Your task to perform on an android device: Open Chrome and go to the settings page Image 0: 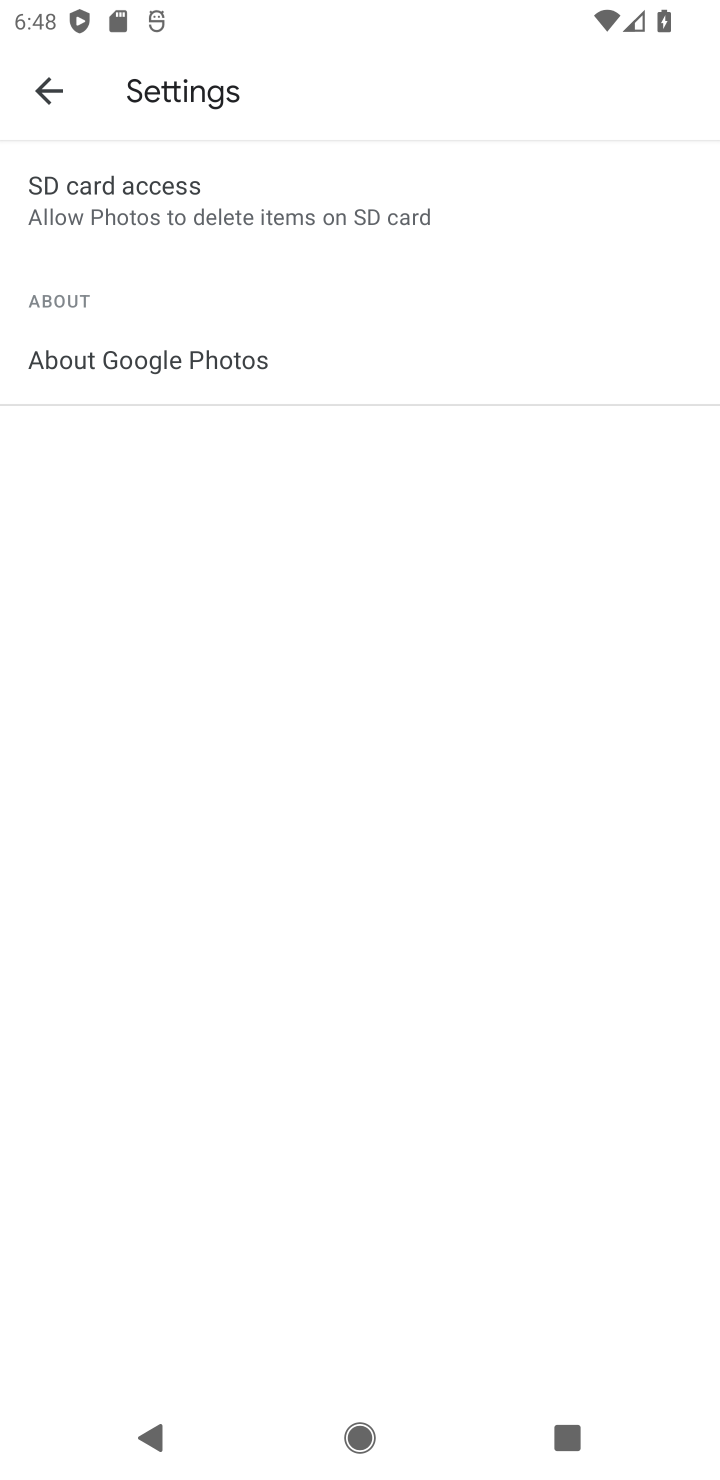
Step 0: press home button
Your task to perform on an android device: Open Chrome and go to the settings page Image 1: 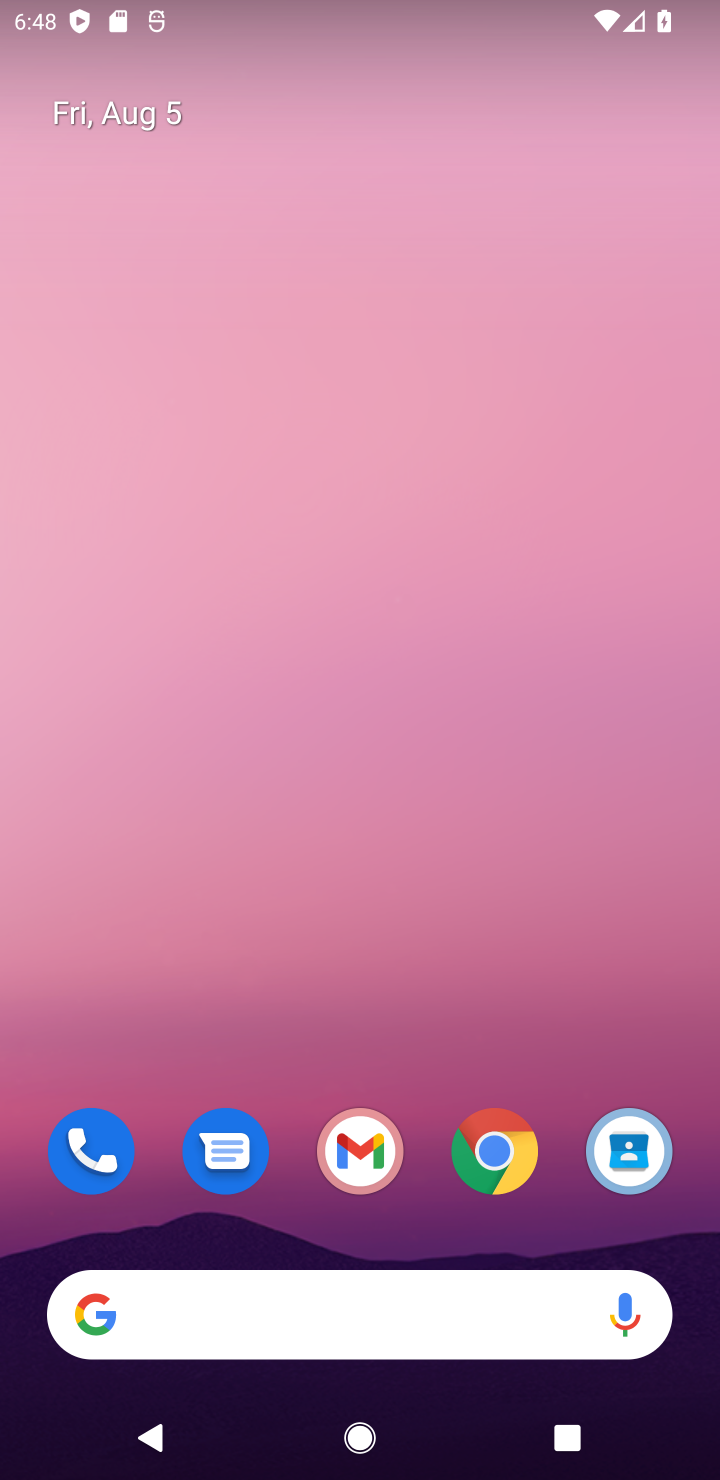
Step 1: click (532, 1145)
Your task to perform on an android device: Open Chrome and go to the settings page Image 2: 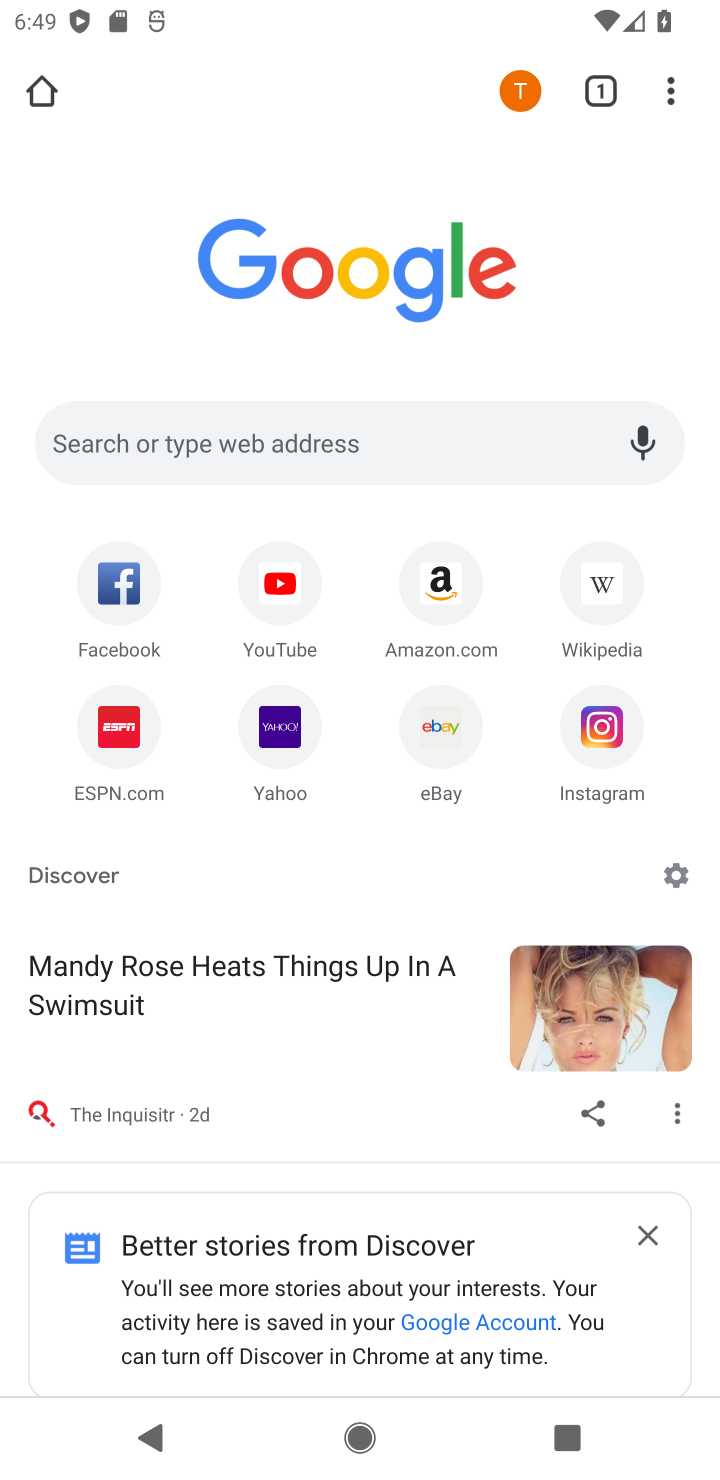
Step 2: click (680, 97)
Your task to perform on an android device: Open Chrome and go to the settings page Image 3: 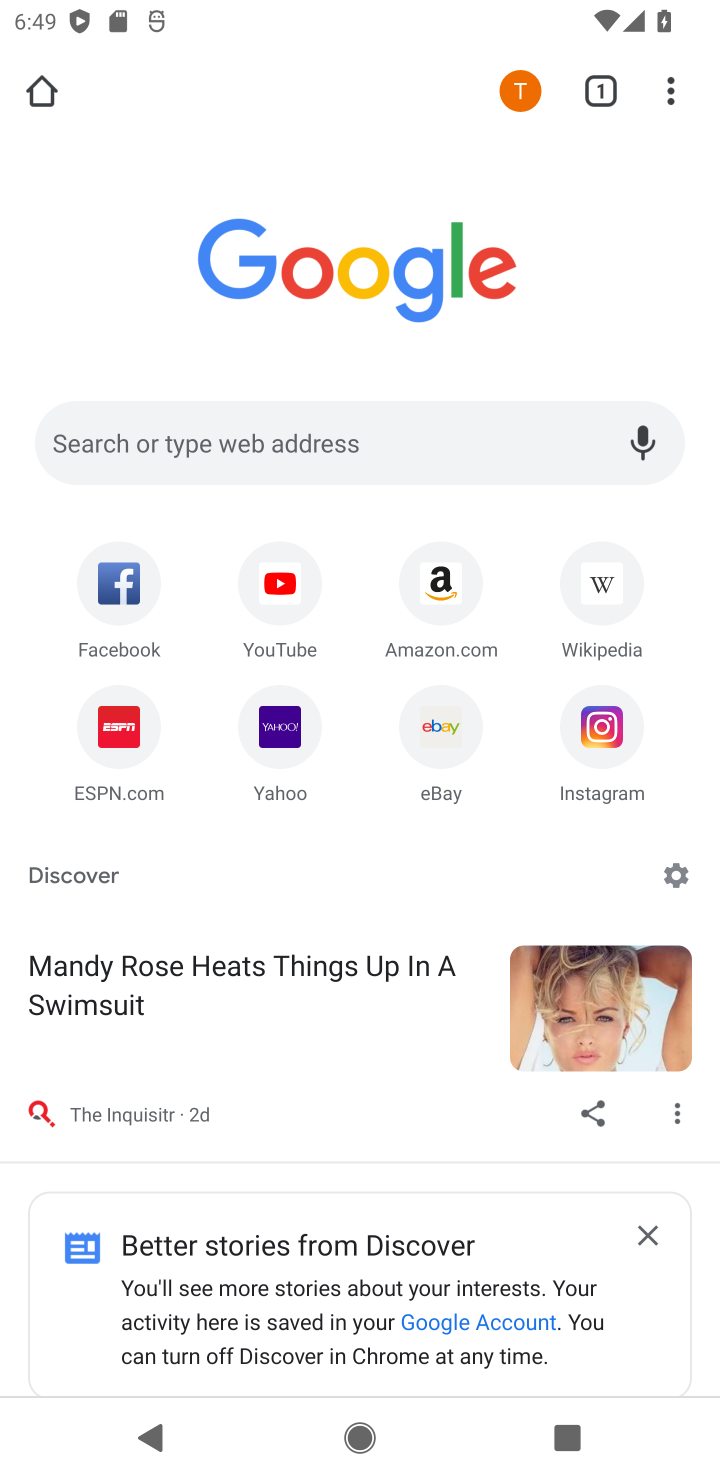
Step 3: click (673, 64)
Your task to perform on an android device: Open Chrome and go to the settings page Image 4: 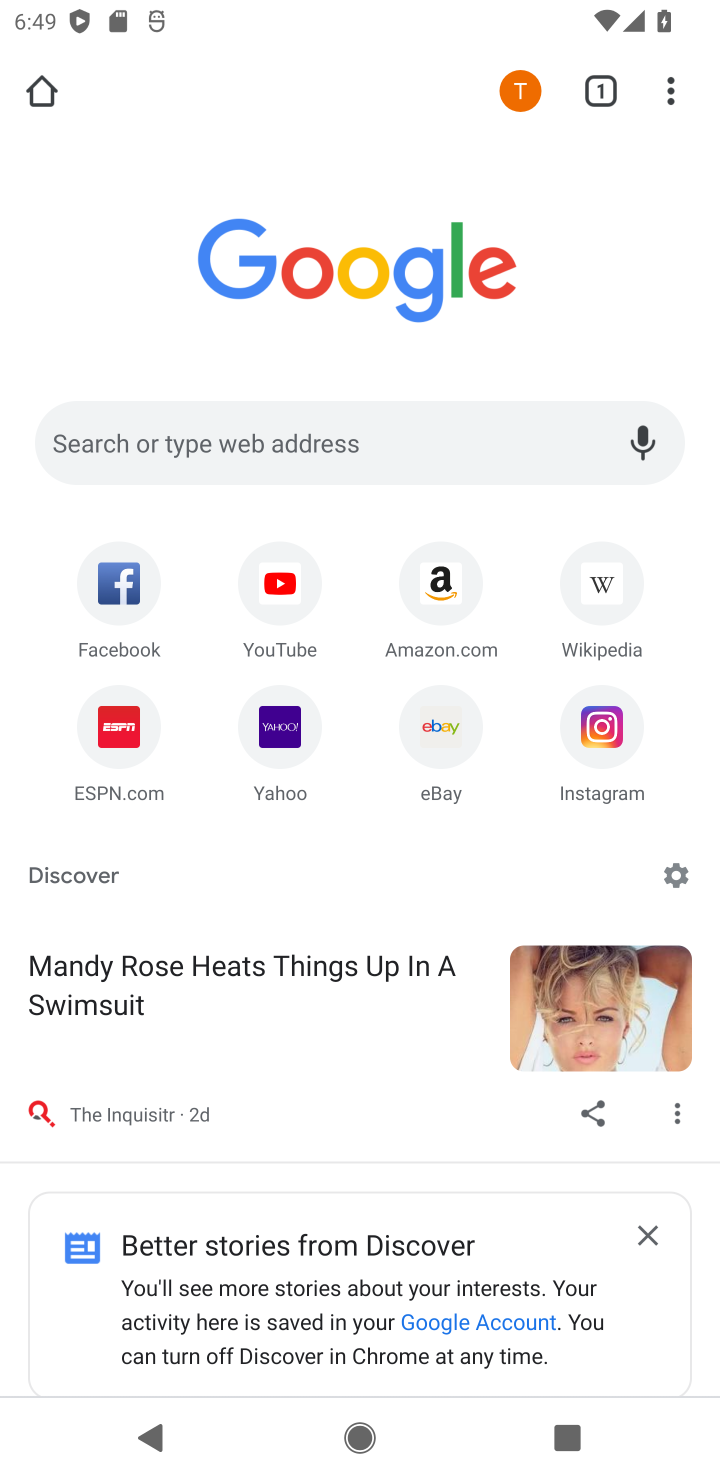
Step 4: click (675, 81)
Your task to perform on an android device: Open Chrome and go to the settings page Image 5: 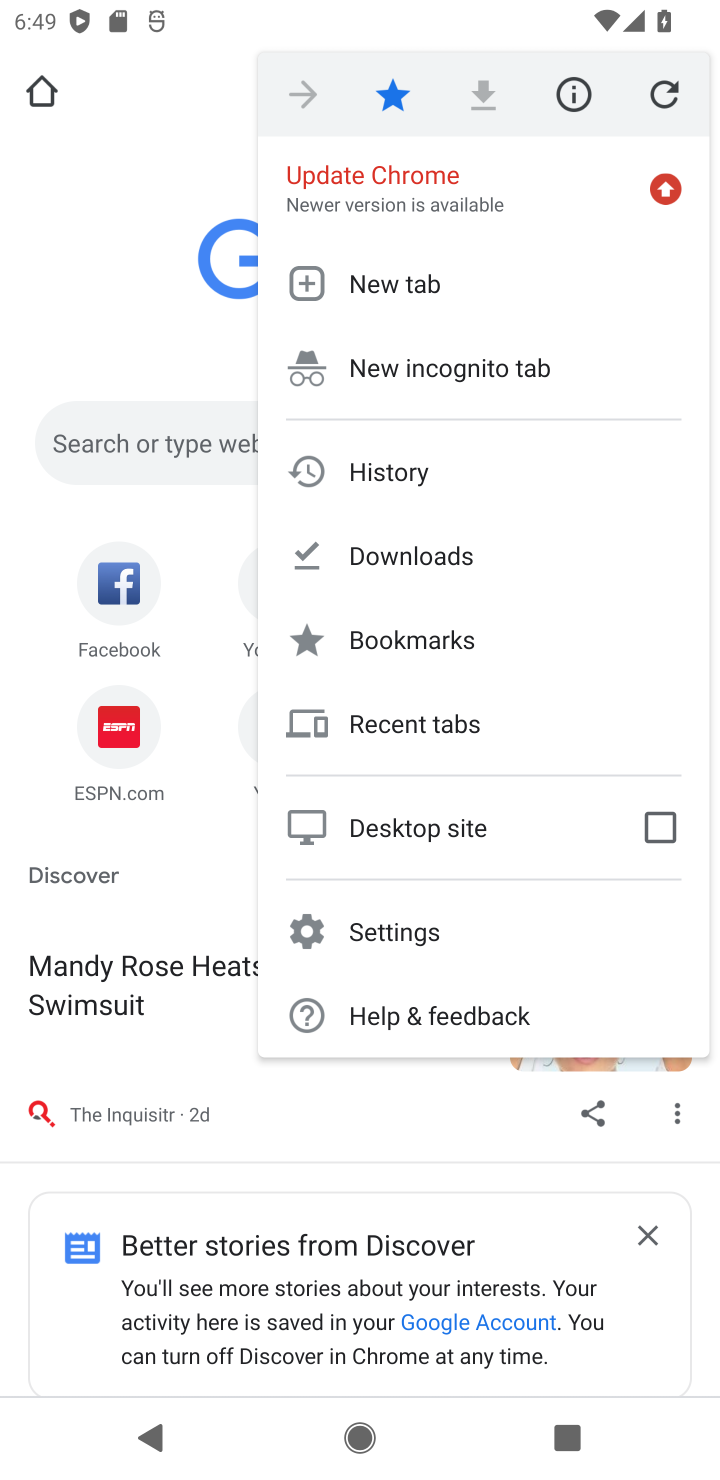
Step 5: click (403, 923)
Your task to perform on an android device: Open Chrome and go to the settings page Image 6: 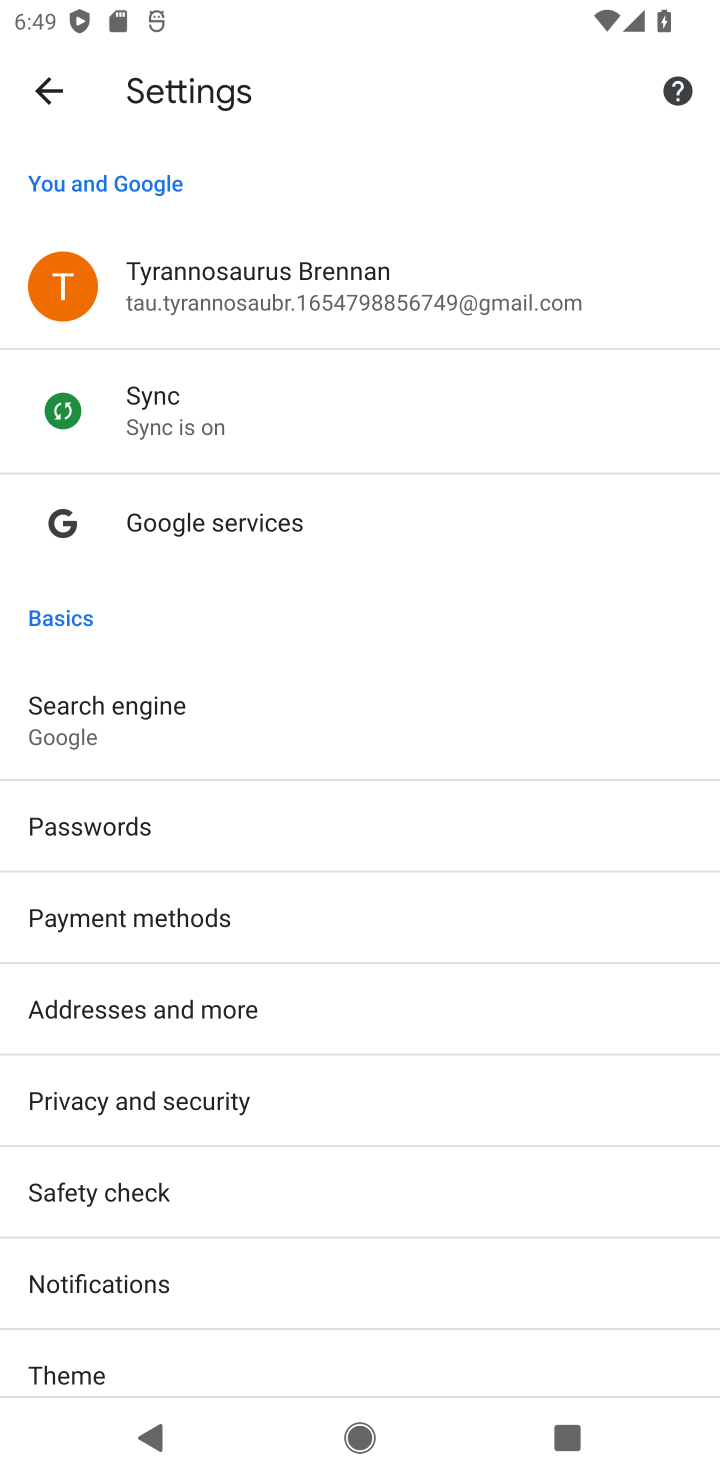
Step 6: task complete